Your task to perform on an android device: Is it going to rain tomorrow? Image 0: 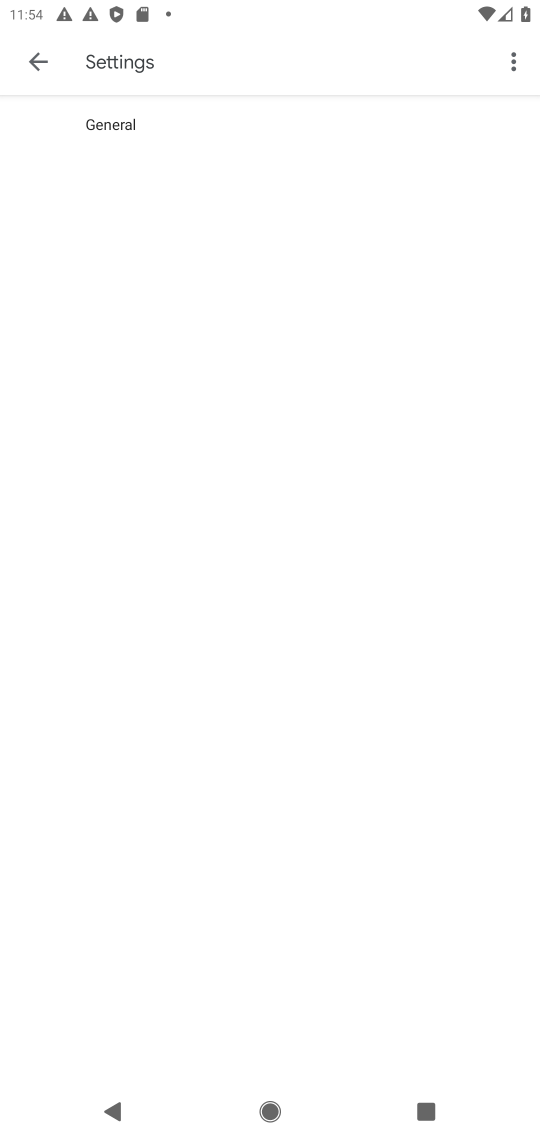
Step 0: press home button
Your task to perform on an android device: Is it going to rain tomorrow? Image 1: 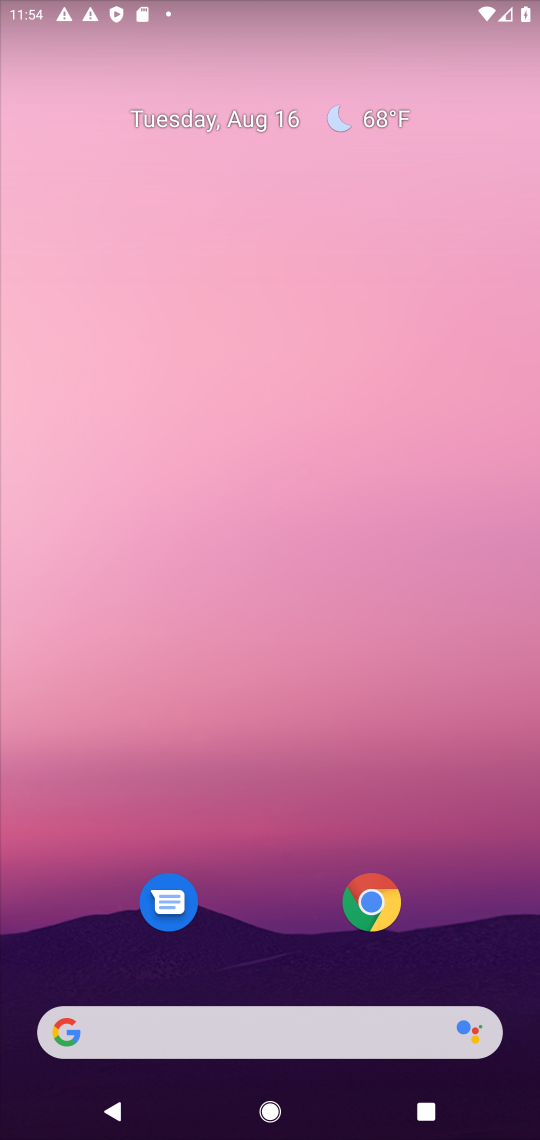
Step 1: drag from (292, 879) to (398, 154)
Your task to perform on an android device: Is it going to rain tomorrow? Image 2: 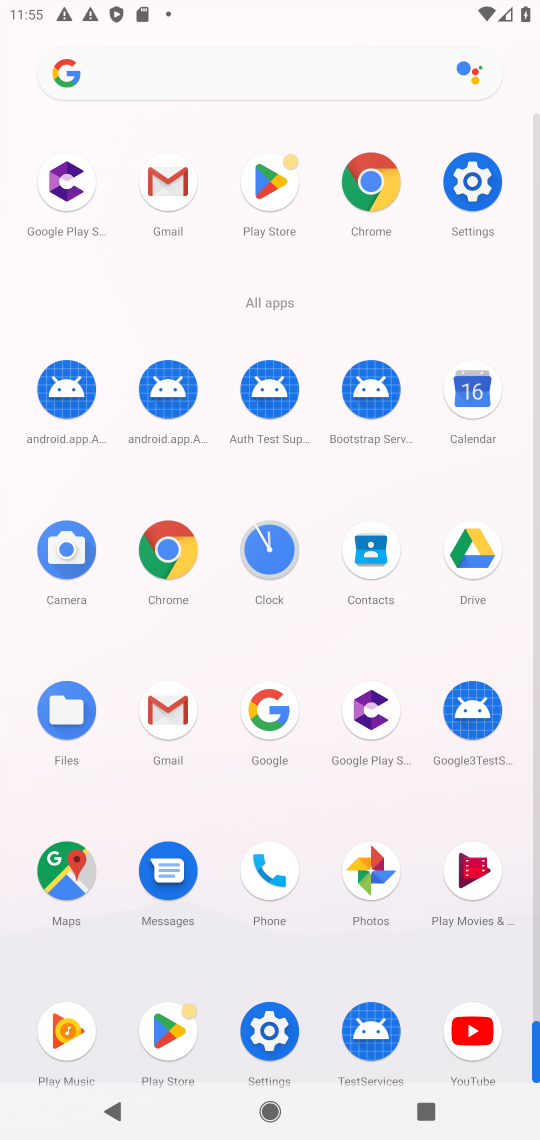
Step 2: click (262, 59)
Your task to perform on an android device: Is it going to rain tomorrow? Image 3: 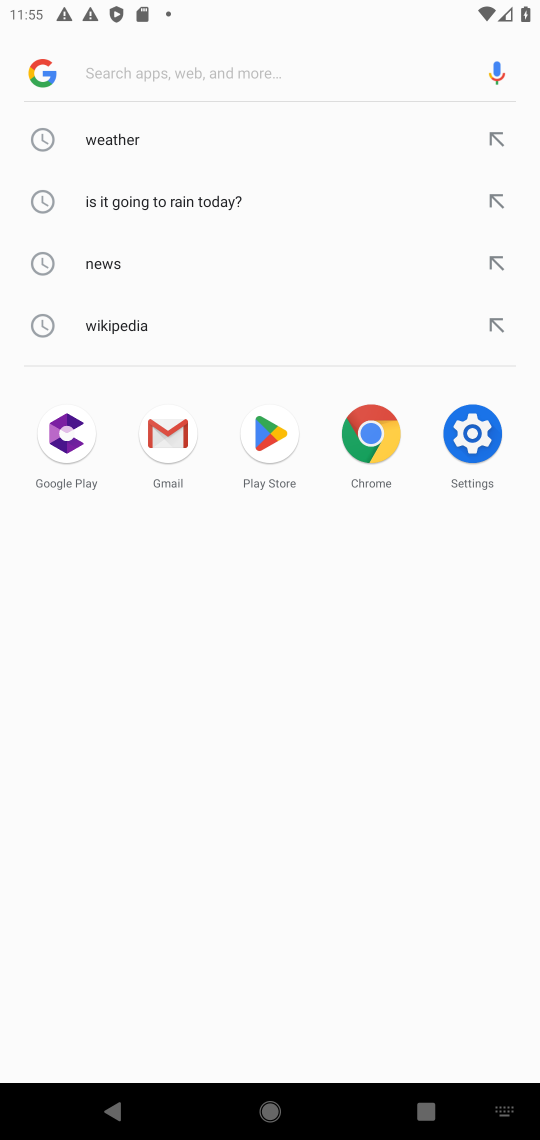
Step 3: type "weather"
Your task to perform on an android device: Is it going to rain tomorrow? Image 4: 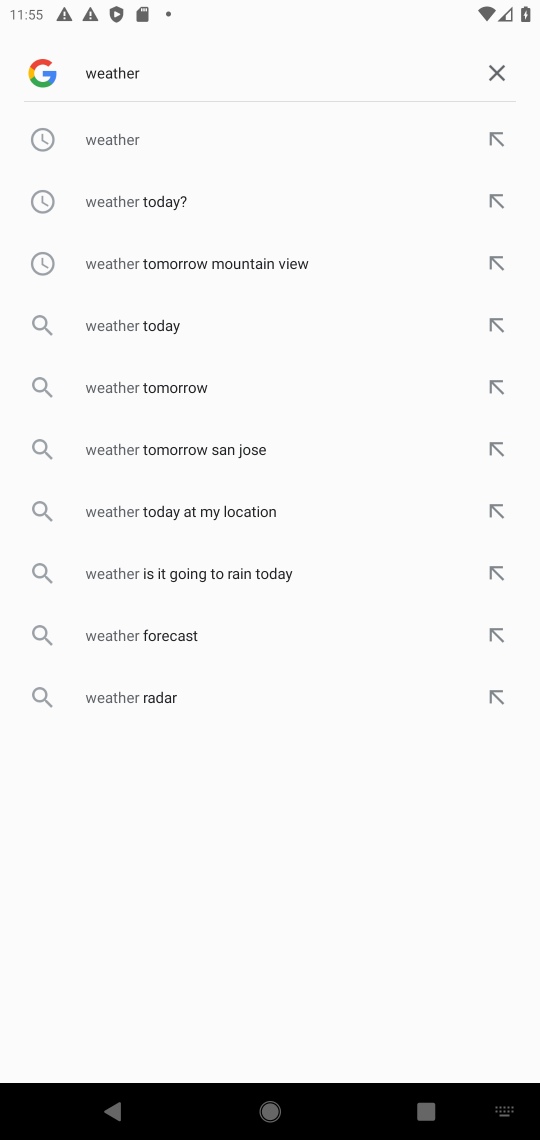
Step 4: click (124, 128)
Your task to perform on an android device: Is it going to rain tomorrow? Image 5: 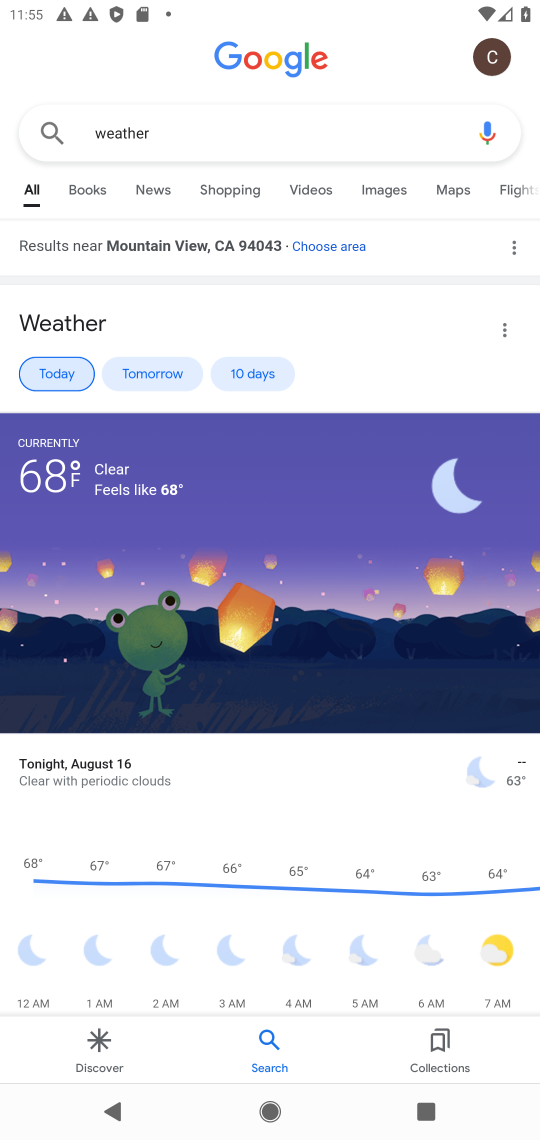
Step 5: click (178, 356)
Your task to perform on an android device: Is it going to rain tomorrow? Image 6: 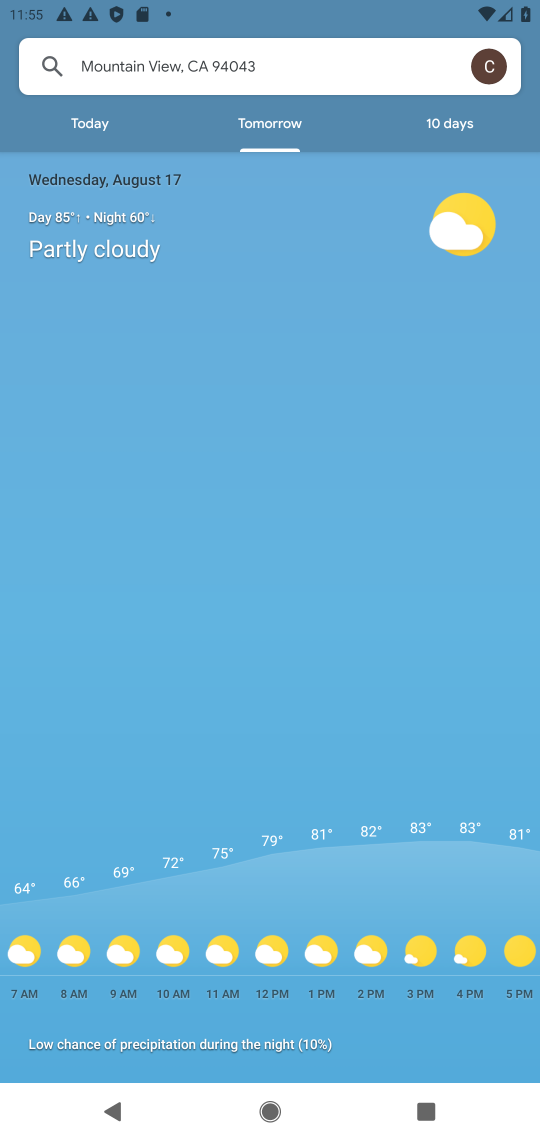
Step 6: task complete